Your task to perform on an android device: Show me popular videos on Youtube Image 0: 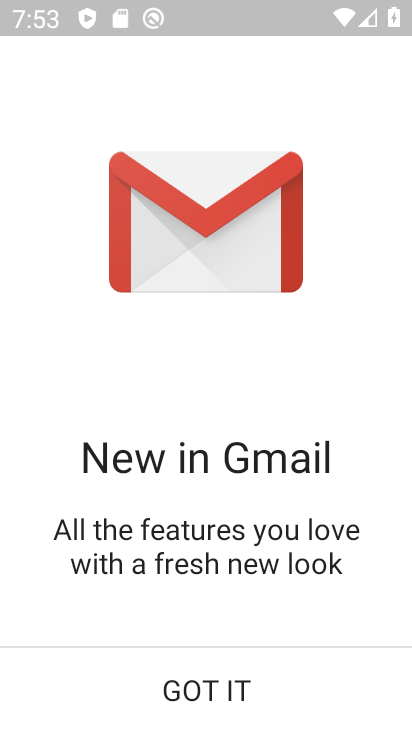
Step 0: press home button
Your task to perform on an android device: Show me popular videos on Youtube Image 1: 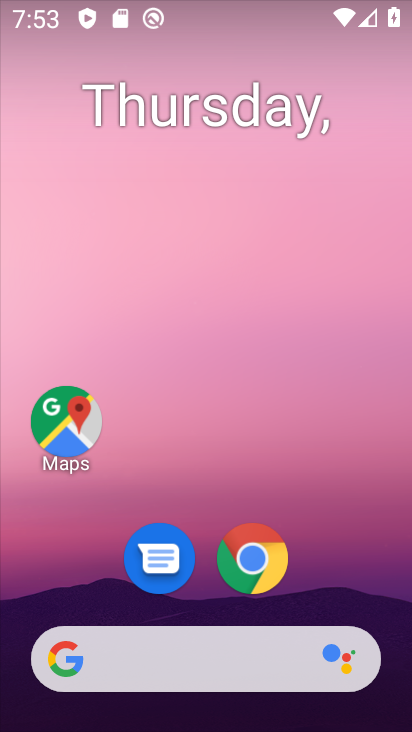
Step 1: drag from (186, 606) to (168, 219)
Your task to perform on an android device: Show me popular videos on Youtube Image 2: 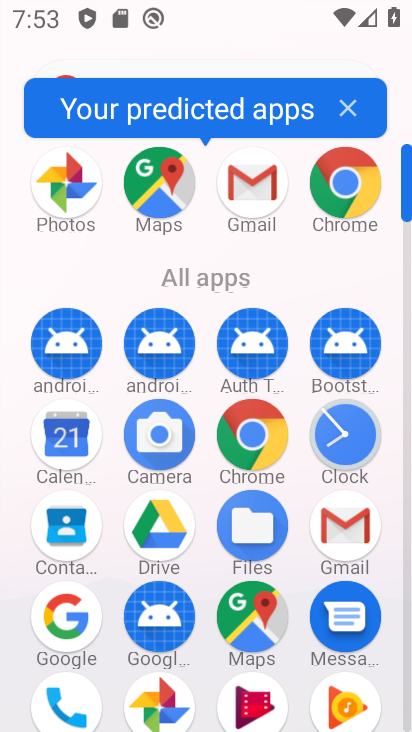
Step 2: drag from (377, 615) to (381, 340)
Your task to perform on an android device: Show me popular videos on Youtube Image 3: 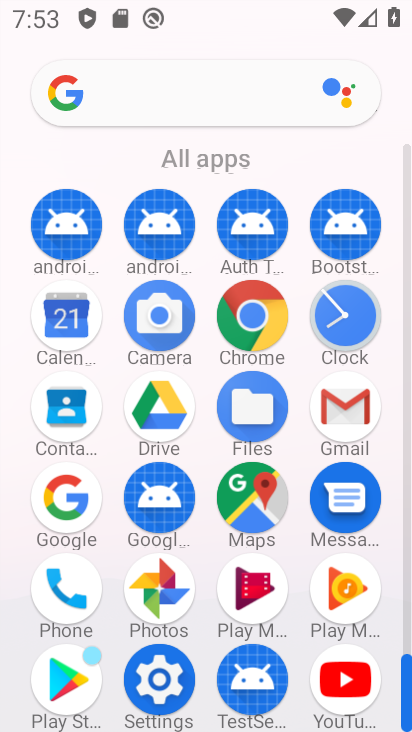
Step 3: click (334, 720)
Your task to perform on an android device: Show me popular videos on Youtube Image 4: 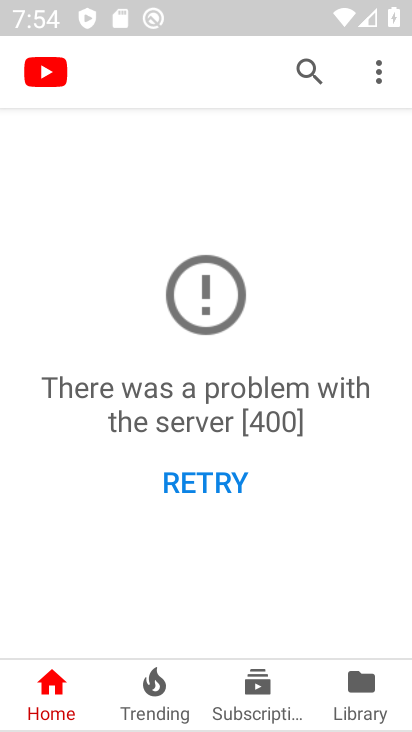
Step 4: task complete